Your task to perform on an android device: Go to settings Image 0: 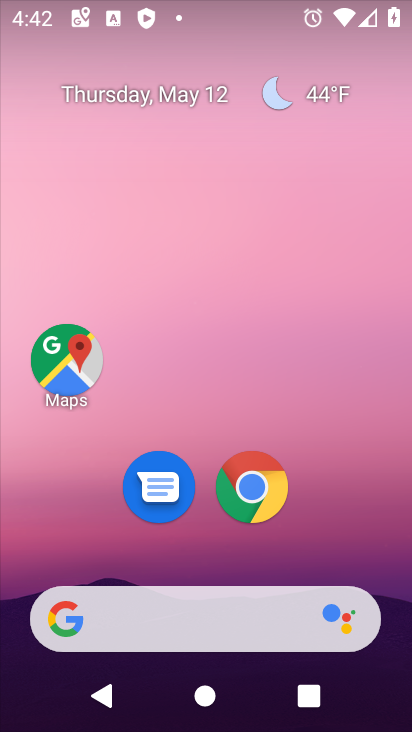
Step 0: drag from (210, 534) to (203, 39)
Your task to perform on an android device: Go to settings Image 1: 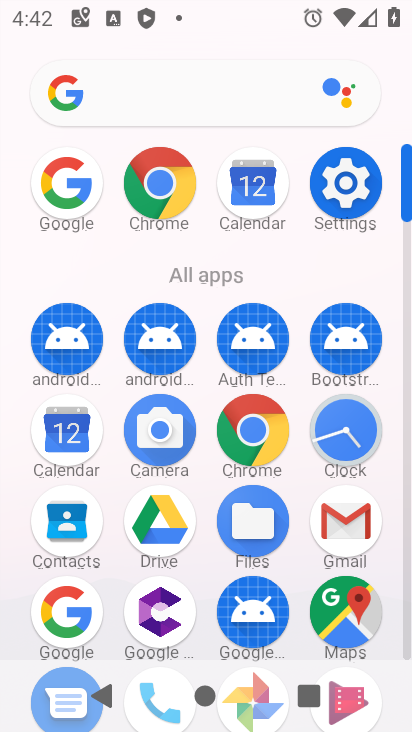
Step 1: click (330, 171)
Your task to perform on an android device: Go to settings Image 2: 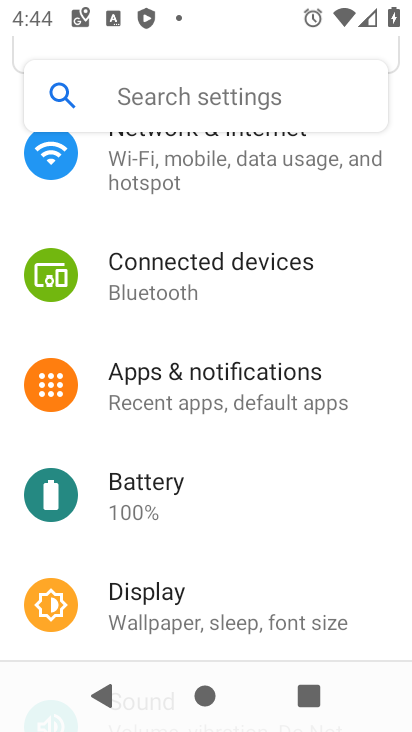
Step 2: task complete